Your task to perform on an android device: find snoozed emails in the gmail app Image 0: 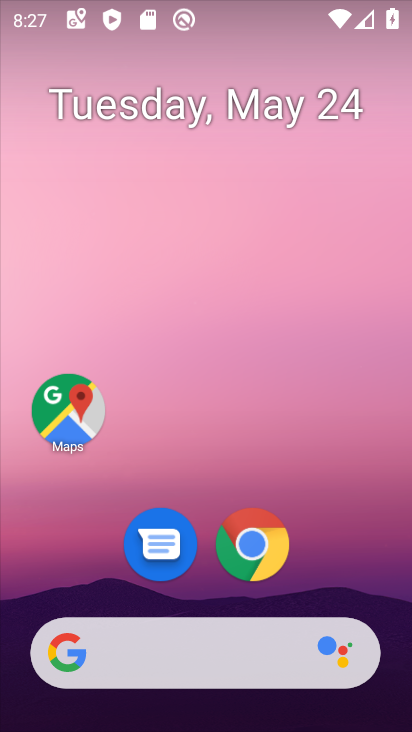
Step 0: drag from (345, 606) to (322, 180)
Your task to perform on an android device: find snoozed emails in the gmail app Image 1: 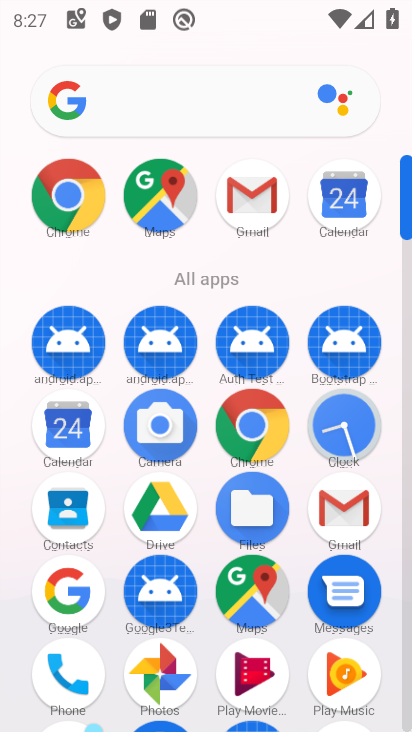
Step 1: click (249, 241)
Your task to perform on an android device: find snoozed emails in the gmail app Image 2: 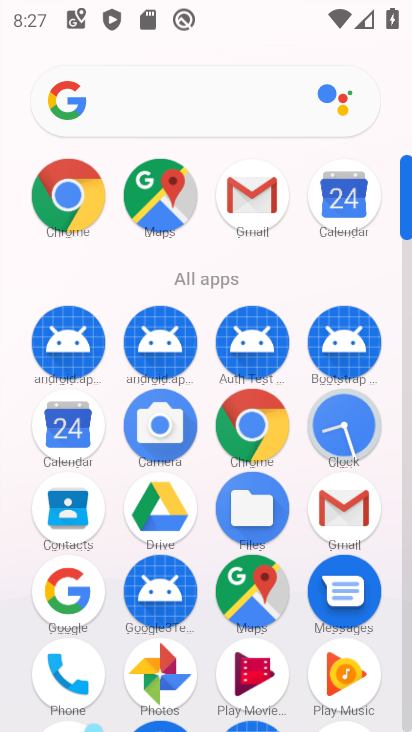
Step 2: click (259, 214)
Your task to perform on an android device: find snoozed emails in the gmail app Image 3: 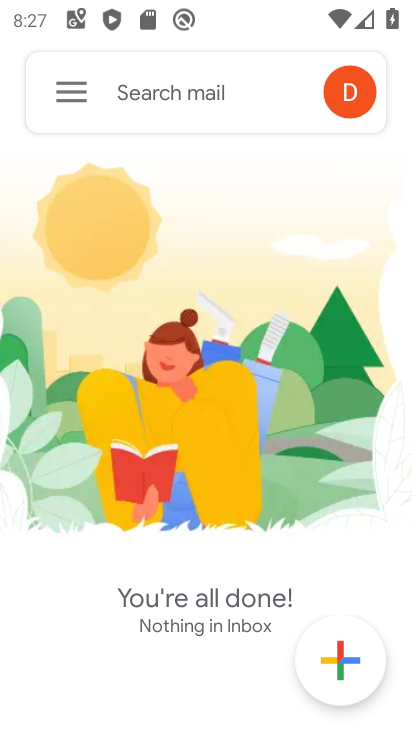
Step 3: click (83, 94)
Your task to perform on an android device: find snoozed emails in the gmail app Image 4: 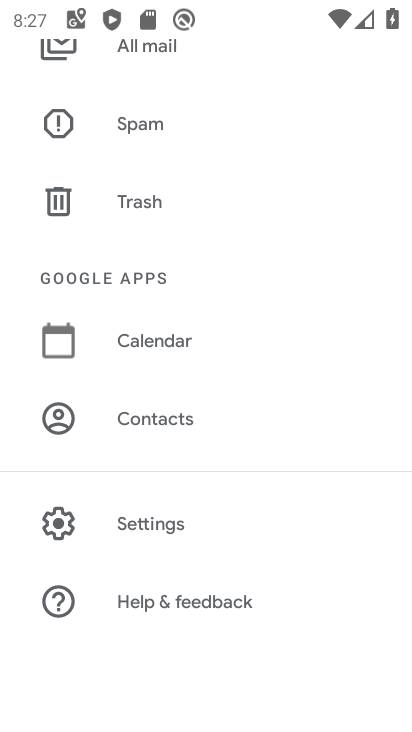
Step 4: drag from (191, 84) to (164, 729)
Your task to perform on an android device: find snoozed emails in the gmail app Image 5: 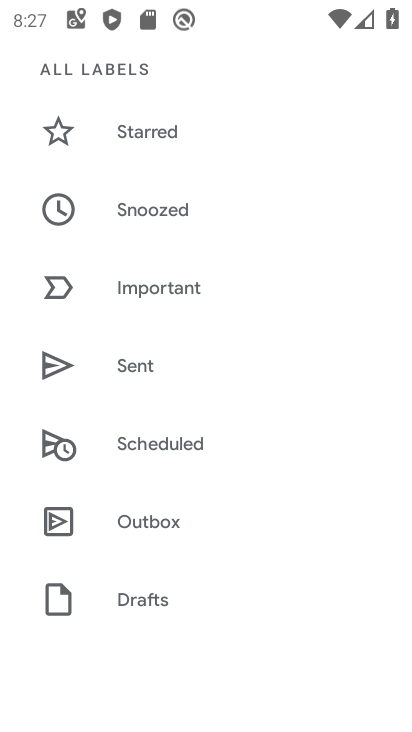
Step 5: click (176, 213)
Your task to perform on an android device: find snoozed emails in the gmail app Image 6: 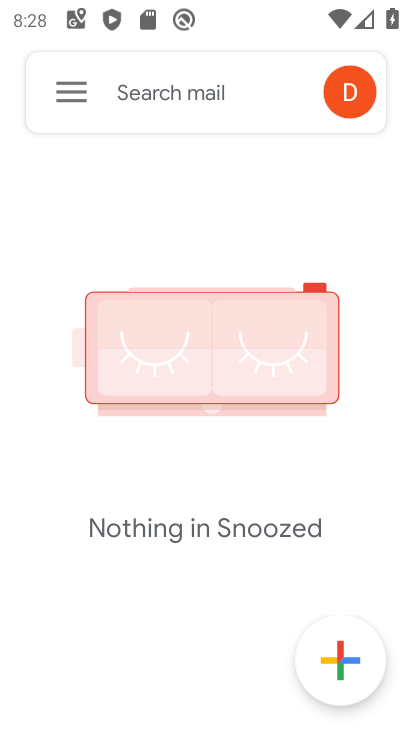
Step 6: task complete